Your task to perform on an android device: What's the weather? Image 0: 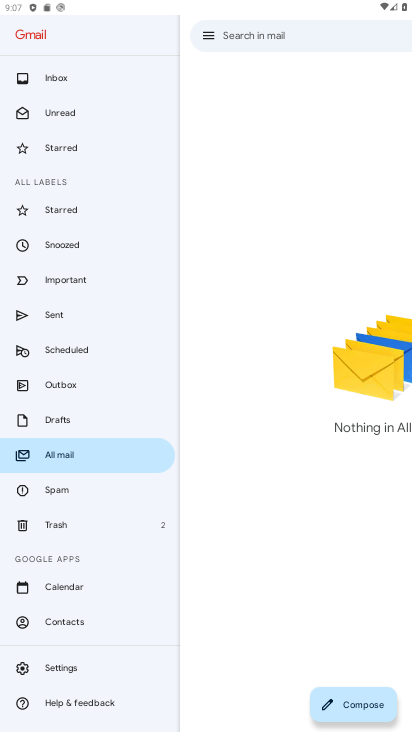
Step 0: press home button
Your task to perform on an android device: What's the weather? Image 1: 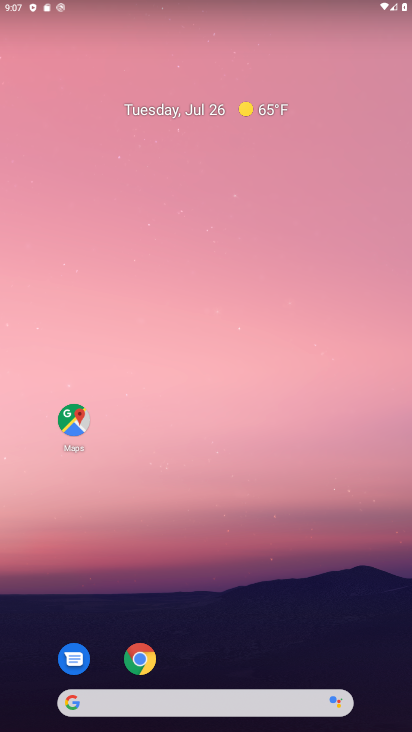
Step 1: click (144, 698)
Your task to perform on an android device: What's the weather? Image 2: 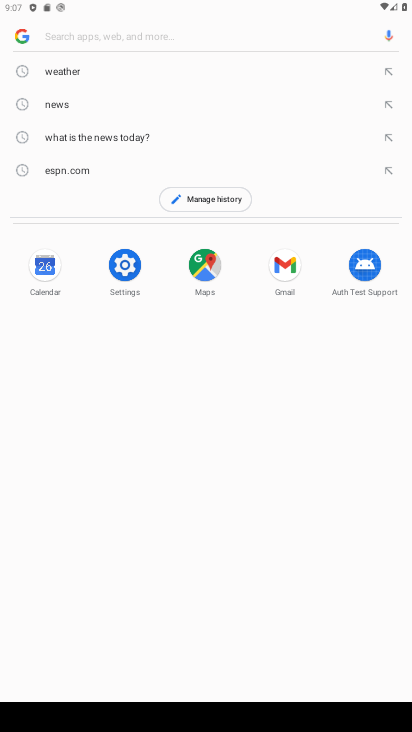
Step 2: click (53, 72)
Your task to perform on an android device: What's the weather? Image 3: 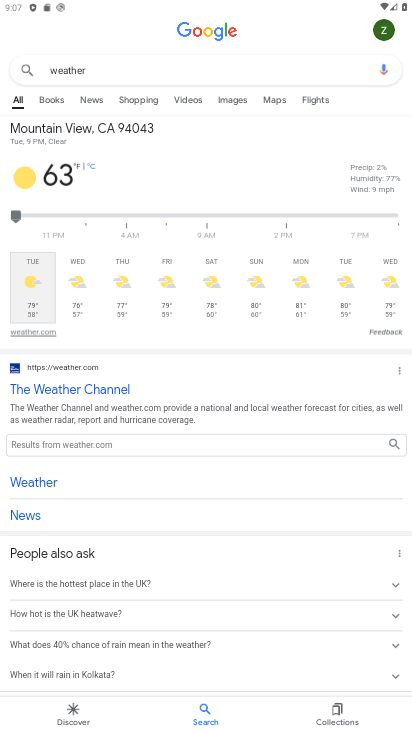
Step 3: task complete